Your task to perform on an android device: Set the phone to "Do not disturb". Image 0: 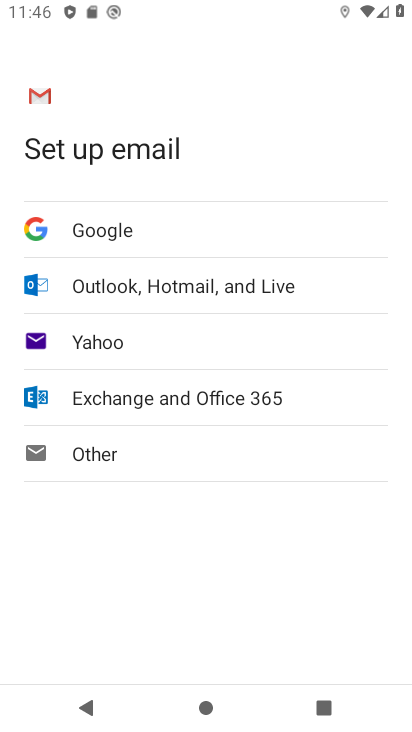
Step 0: press back button
Your task to perform on an android device: Set the phone to "Do not disturb". Image 1: 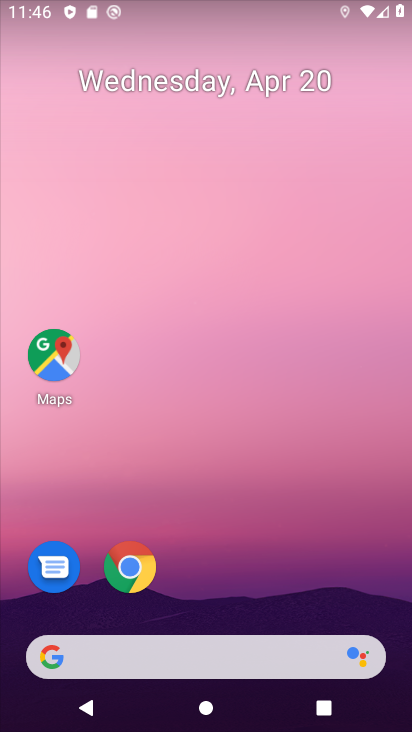
Step 1: drag from (191, 626) to (267, 110)
Your task to perform on an android device: Set the phone to "Do not disturb". Image 2: 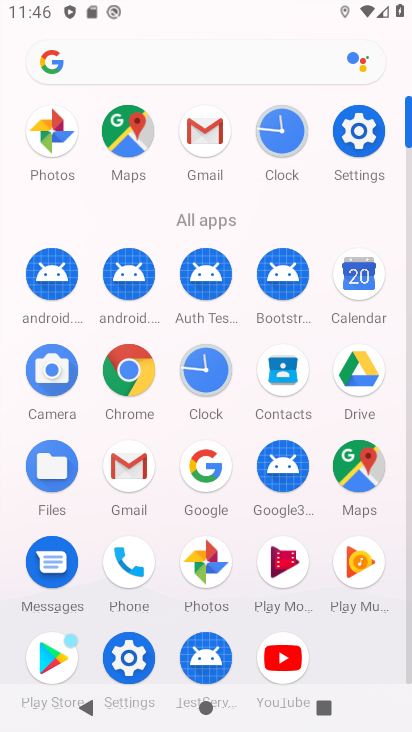
Step 2: click (130, 656)
Your task to perform on an android device: Set the phone to "Do not disturb". Image 3: 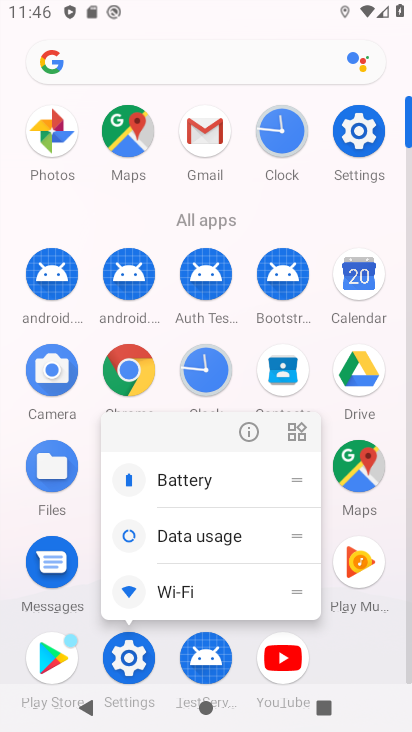
Step 3: click (126, 668)
Your task to perform on an android device: Set the phone to "Do not disturb". Image 4: 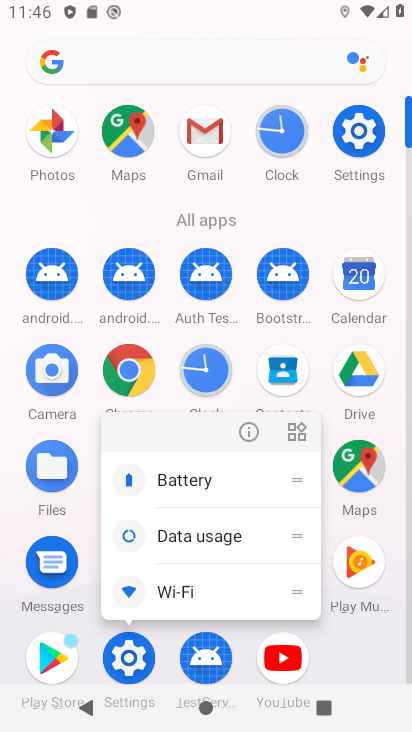
Step 4: click (129, 657)
Your task to perform on an android device: Set the phone to "Do not disturb". Image 5: 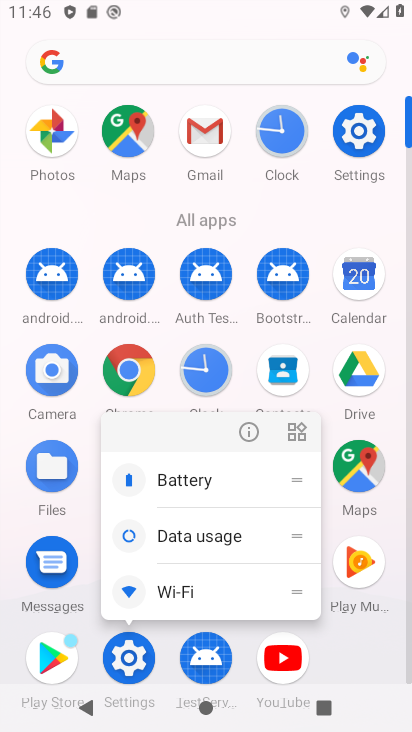
Step 5: click (136, 659)
Your task to perform on an android device: Set the phone to "Do not disturb". Image 6: 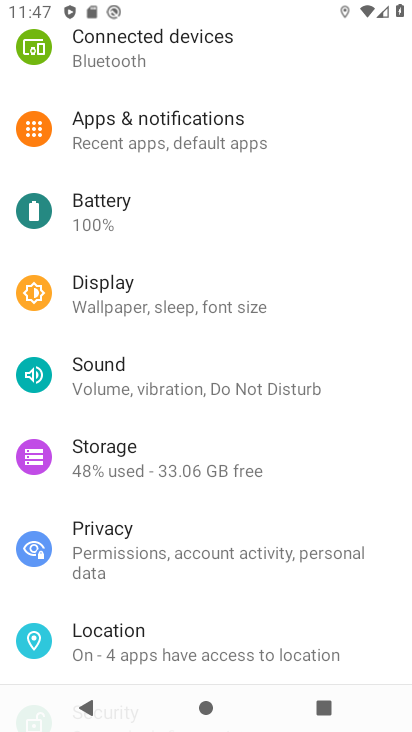
Step 6: click (223, 137)
Your task to perform on an android device: Set the phone to "Do not disturb". Image 7: 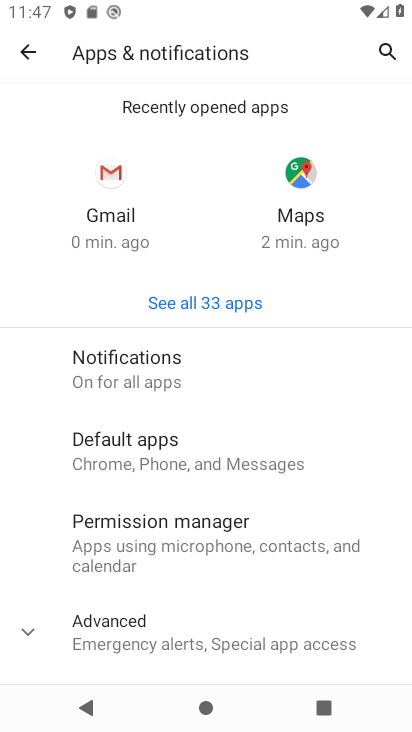
Step 7: click (222, 386)
Your task to perform on an android device: Set the phone to "Do not disturb". Image 8: 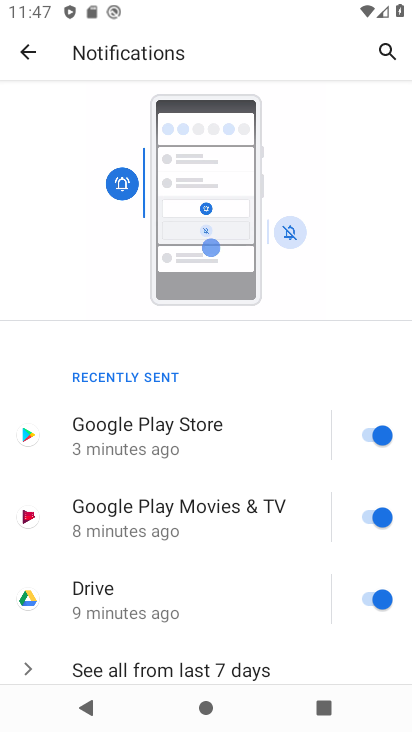
Step 8: drag from (216, 578) to (275, 190)
Your task to perform on an android device: Set the phone to "Do not disturb". Image 9: 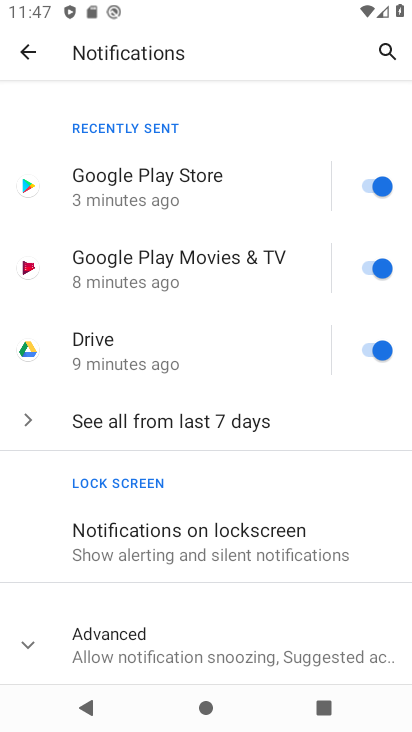
Step 9: drag from (184, 589) to (224, 371)
Your task to perform on an android device: Set the phone to "Do not disturb". Image 10: 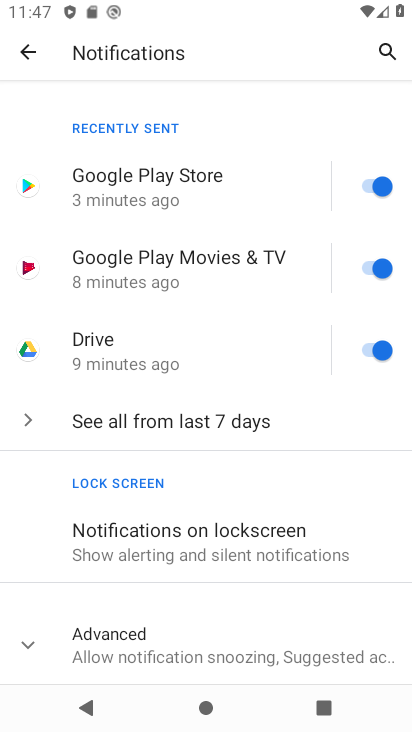
Step 10: click (205, 640)
Your task to perform on an android device: Set the phone to "Do not disturb". Image 11: 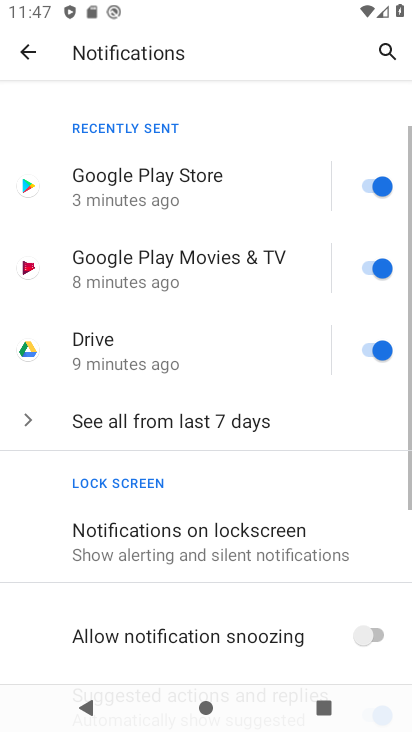
Step 11: drag from (212, 636) to (343, 227)
Your task to perform on an android device: Set the phone to "Do not disturb". Image 12: 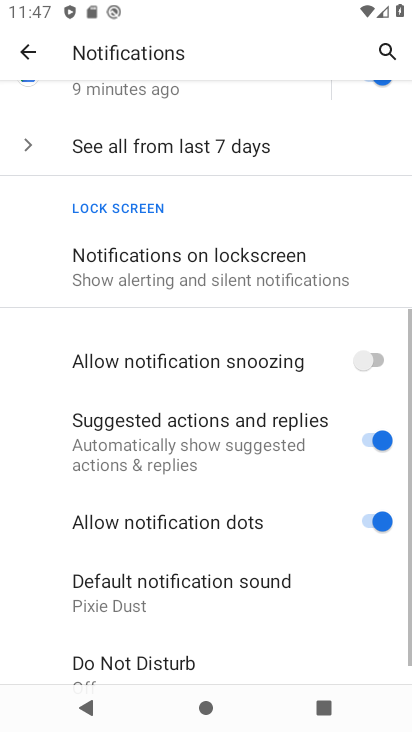
Step 12: drag from (233, 561) to (276, 374)
Your task to perform on an android device: Set the phone to "Do not disturb". Image 13: 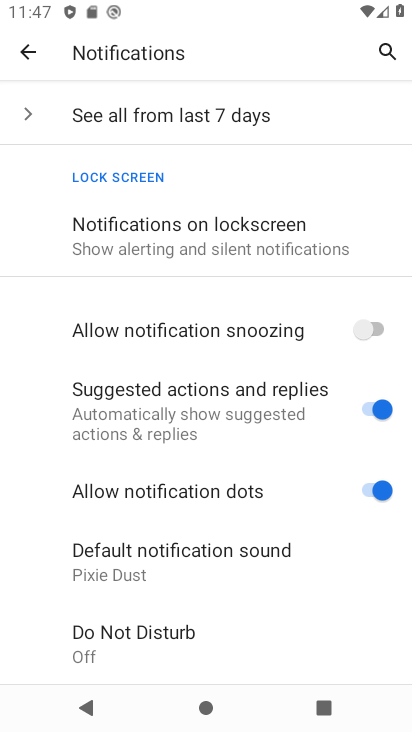
Step 13: click (210, 638)
Your task to perform on an android device: Set the phone to "Do not disturb". Image 14: 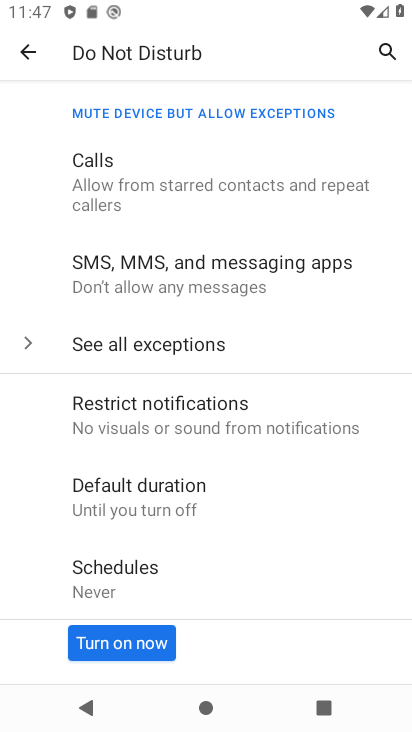
Step 14: click (163, 642)
Your task to perform on an android device: Set the phone to "Do not disturb". Image 15: 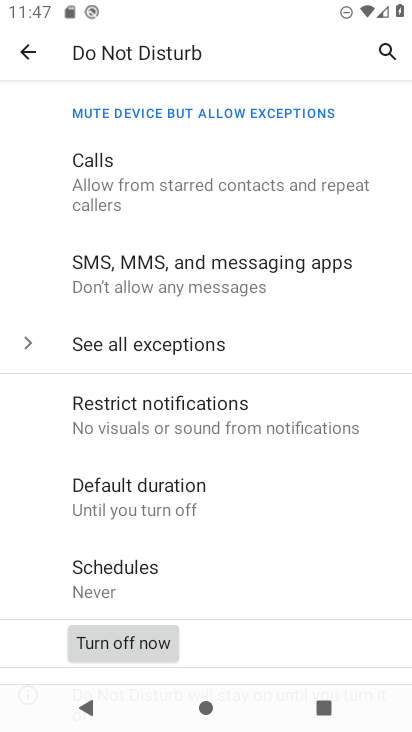
Step 15: task complete